Your task to perform on an android device: find photos in the google photos app Image 0: 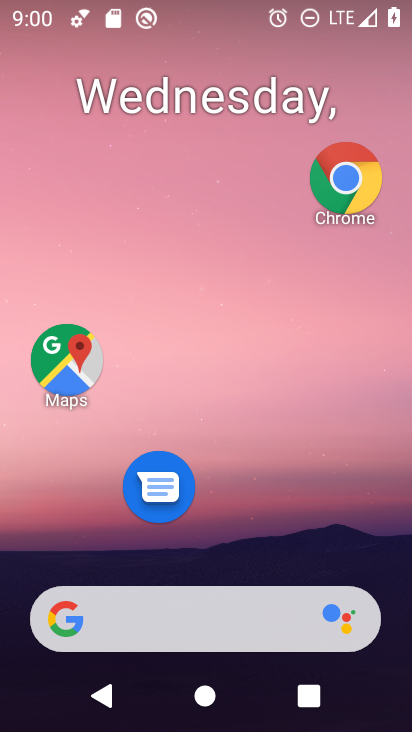
Step 0: drag from (236, 571) to (306, 57)
Your task to perform on an android device: find photos in the google photos app Image 1: 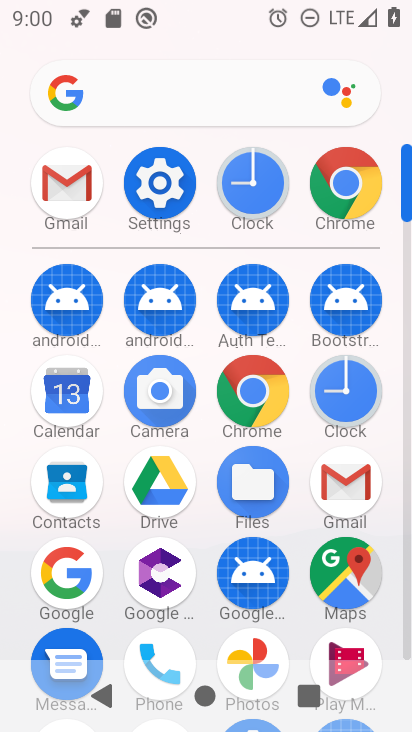
Step 1: drag from (252, 479) to (307, 125)
Your task to perform on an android device: find photos in the google photos app Image 2: 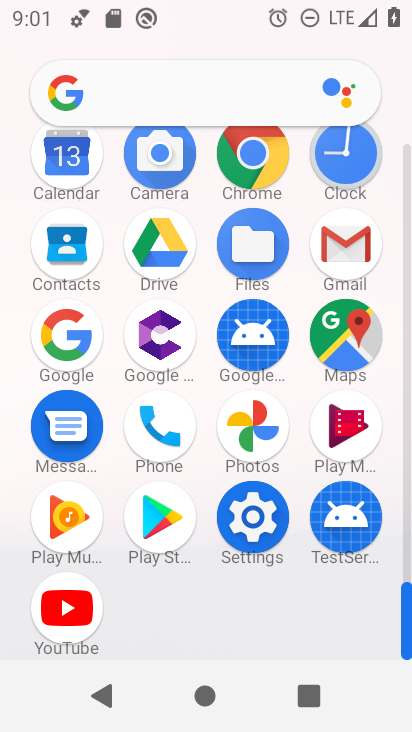
Step 2: click (267, 435)
Your task to perform on an android device: find photos in the google photos app Image 3: 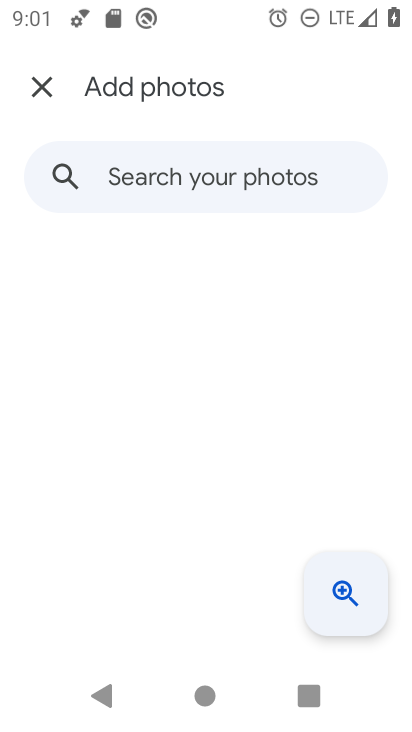
Step 3: click (49, 93)
Your task to perform on an android device: find photos in the google photos app Image 4: 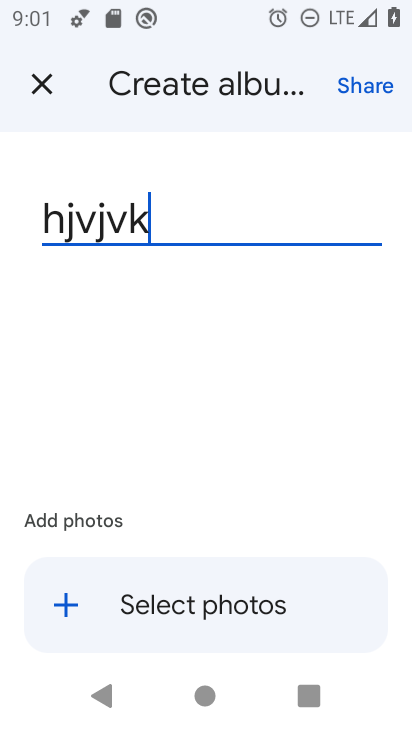
Step 4: click (49, 92)
Your task to perform on an android device: find photos in the google photos app Image 5: 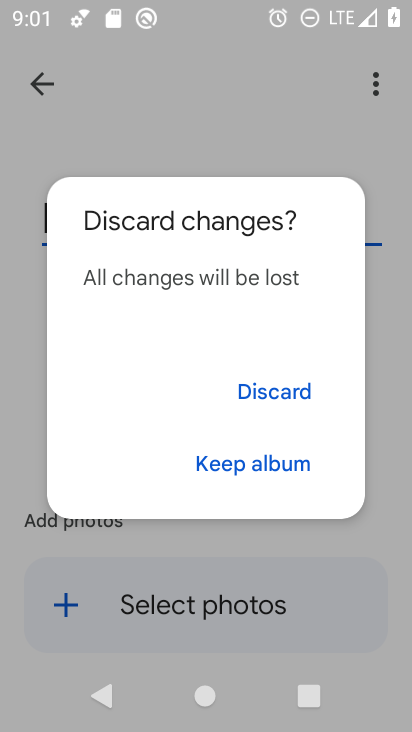
Step 5: click (267, 393)
Your task to perform on an android device: find photos in the google photos app Image 6: 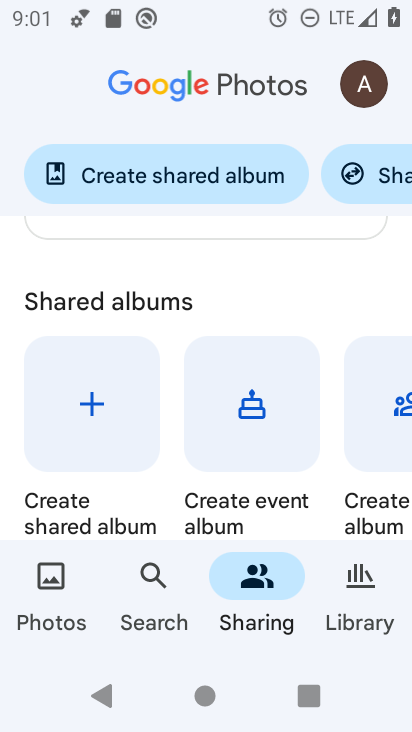
Step 6: click (69, 607)
Your task to perform on an android device: find photos in the google photos app Image 7: 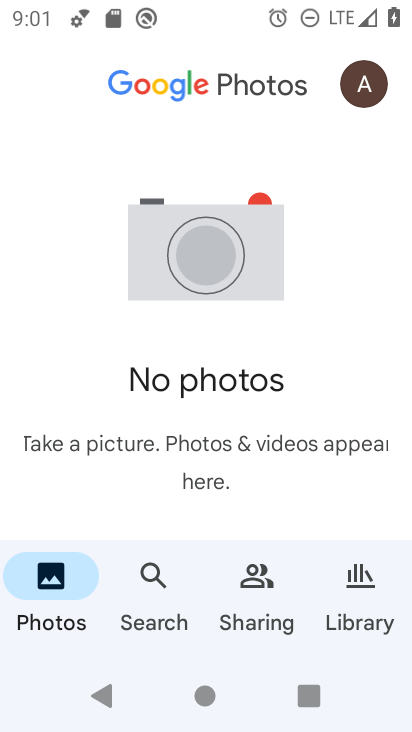
Step 7: task complete